Your task to perform on an android device: Search for a new mascara on Sephora Image 0: 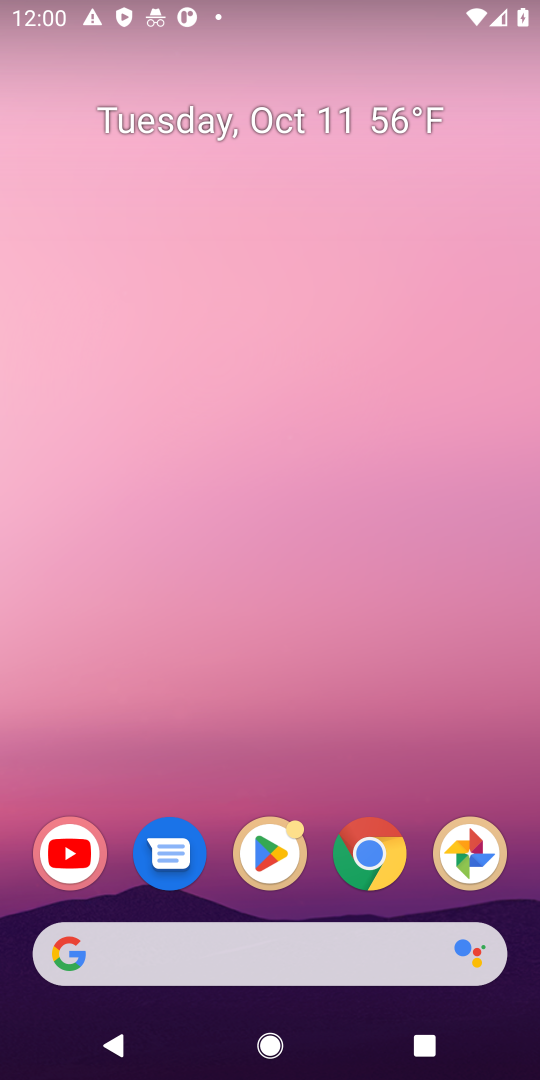
Step 0: drag from (345, 594) to (378, 65)
Your task to perform on an android device: Search for a new mascara on Sephora Image 1: 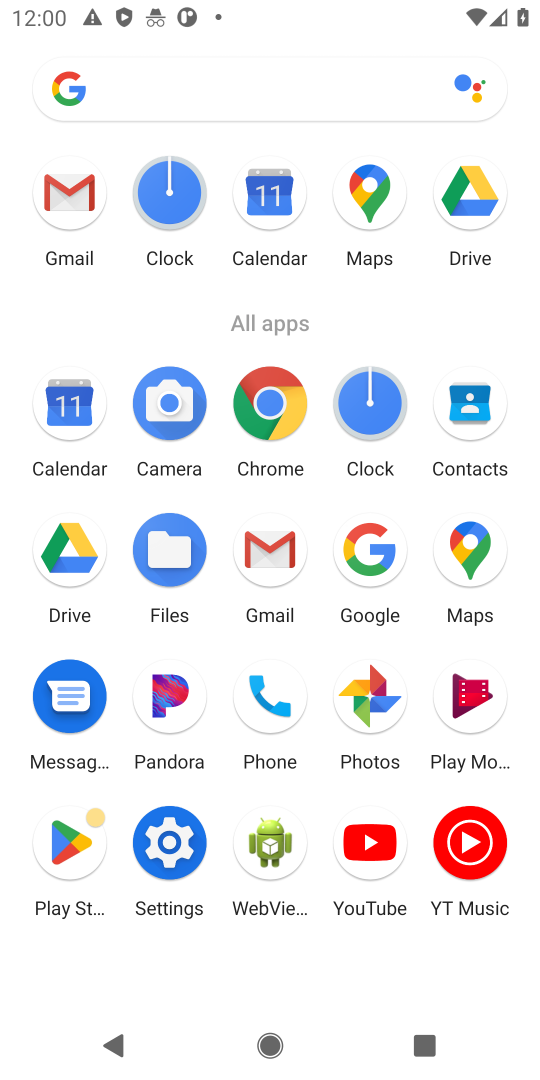
Step 1: click (278, 401)
Your task to perform on an android device: Search for a new mascara on Sephora Image 2: 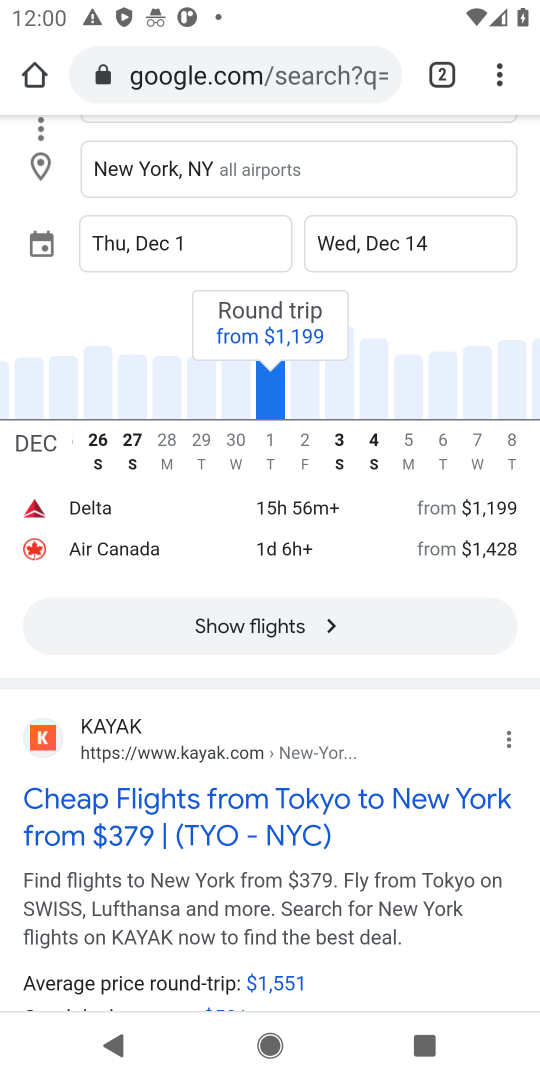
Step 2: drag from (434, 218) to (379, 1072)
Your task to perform on an android device: Search for a new mascara on Sephora Image 3: 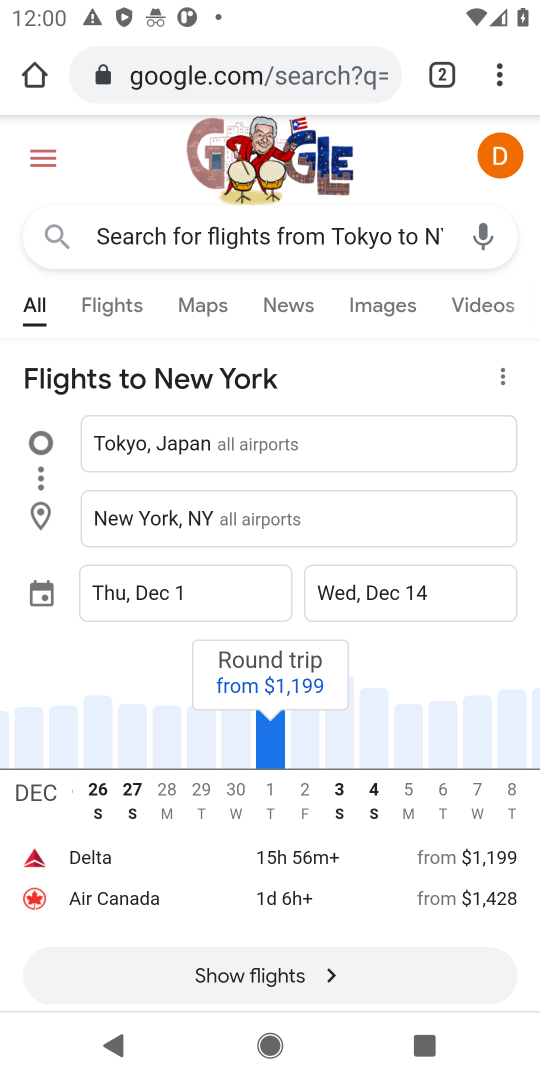
Step 3: click (229, 63)
Your task to perform on an android device: Search for a new mascara on Sephora Image 4: 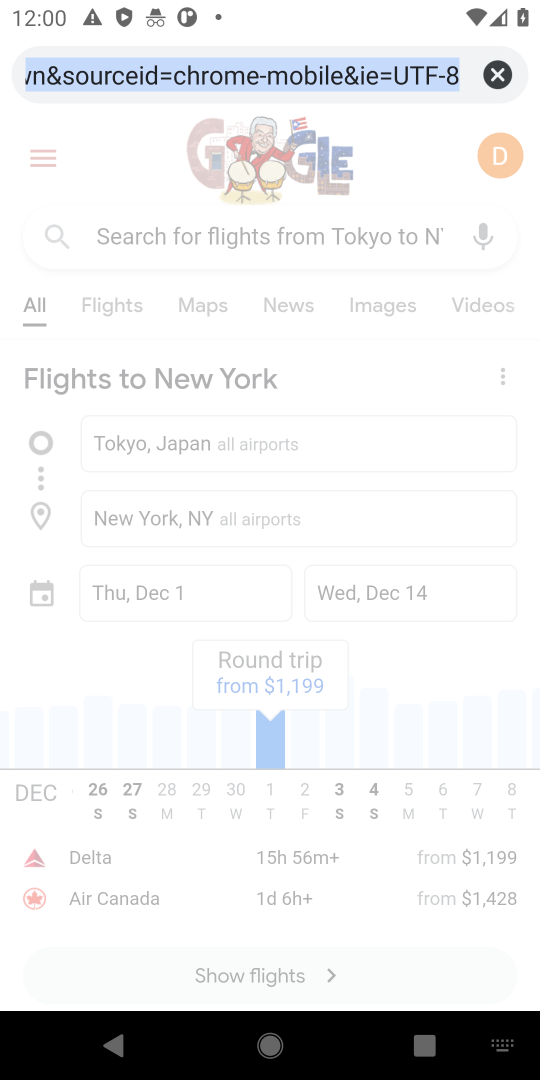
Step 4: click (498, 72)
Your task to perform on an android device: Search for a new mascara on Sephora Image 5: 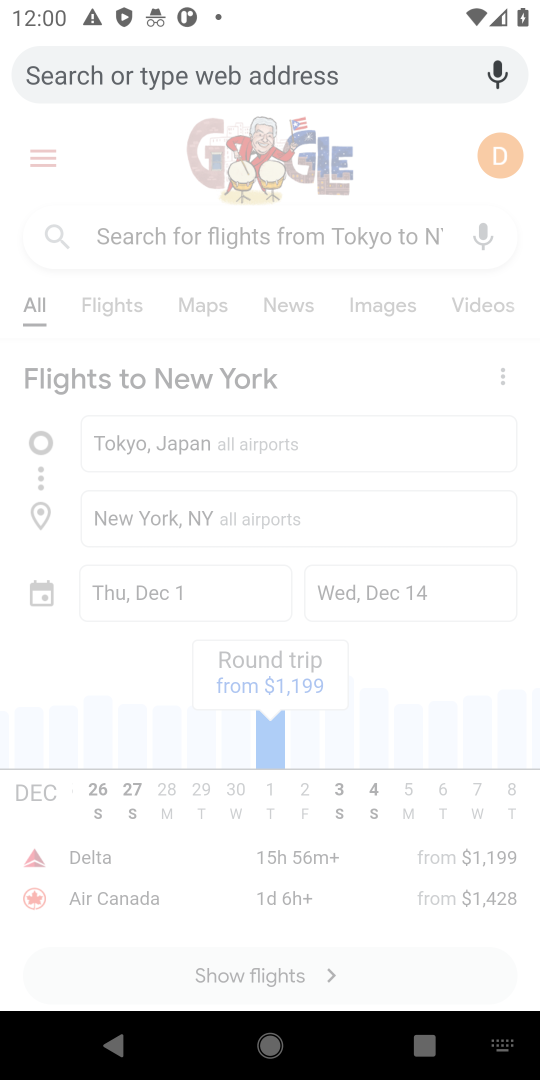
Step 5: type "Sephora"
Your task to perform on an android device: Search for a new mascara on Sephora Image 6: 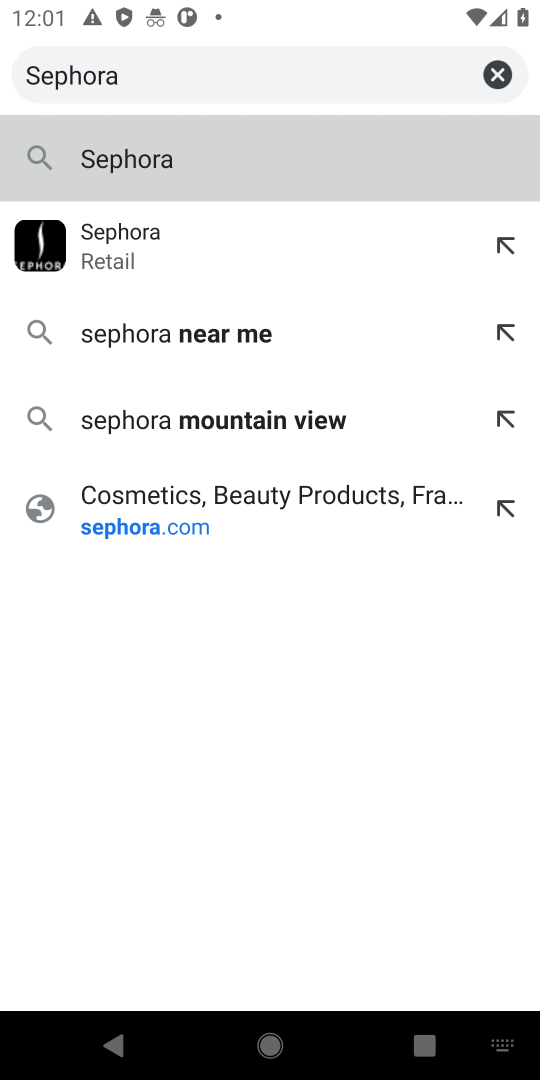
Step 6: click (113, 147)
Your task to perform on an android device: Search for a new mascara on Sephora Image 7: 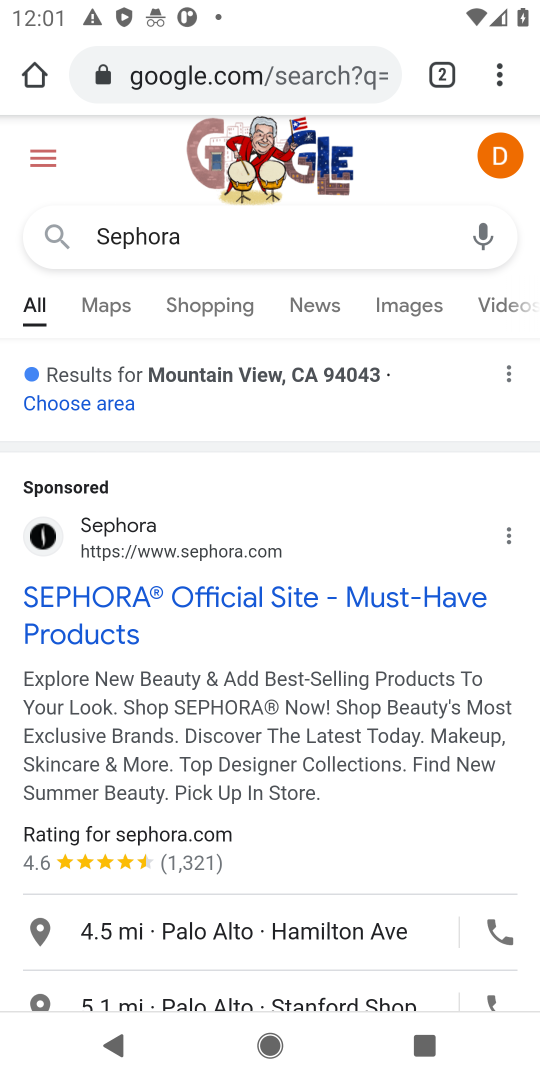
Step 7: click (285, 600)
Your task to perform on an android device: Search for a new mascara on Sephora Image 8: 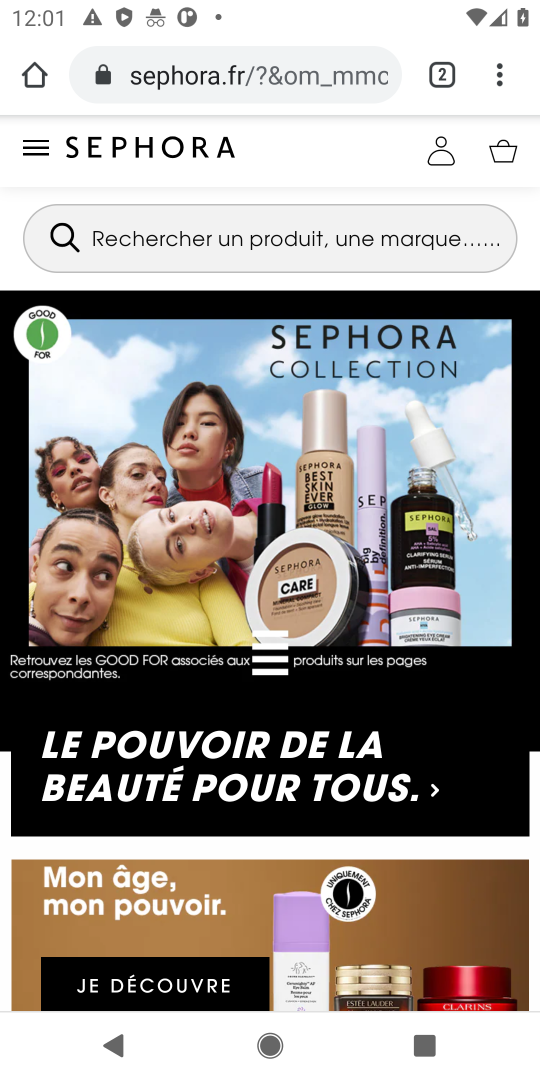
Step 8: click (428, 138)
Your task to perform on an android device: Search for a new mascara on Sephora Image 9: 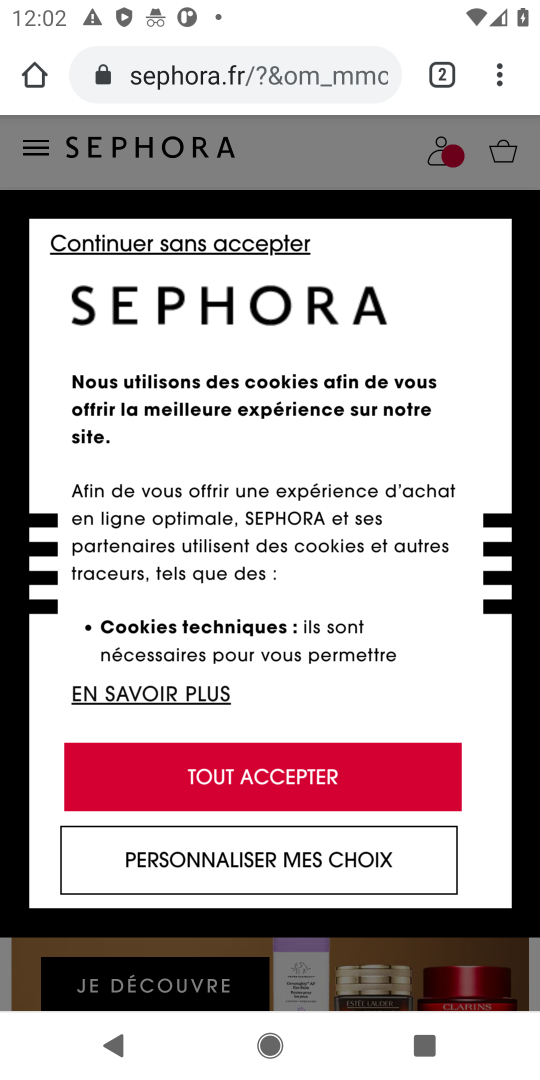
Step 9: click (308, 169)
Your task to perform on an android device: Search for a new mascara on Sephora Image 10: 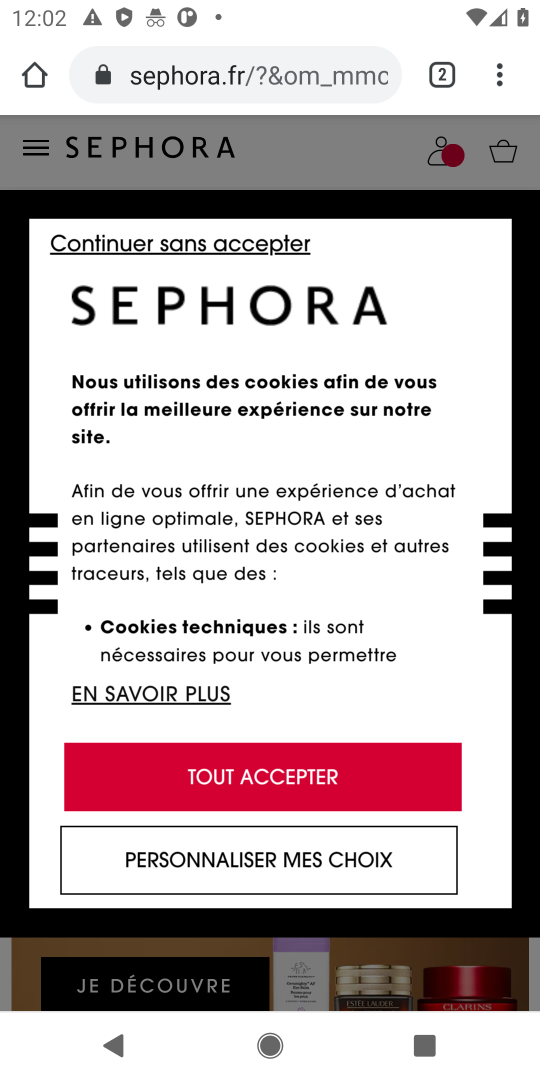
Step 10: click (19, 927)
Your task to perform on an android device: Search for a new mascara on Sephora Image 11: 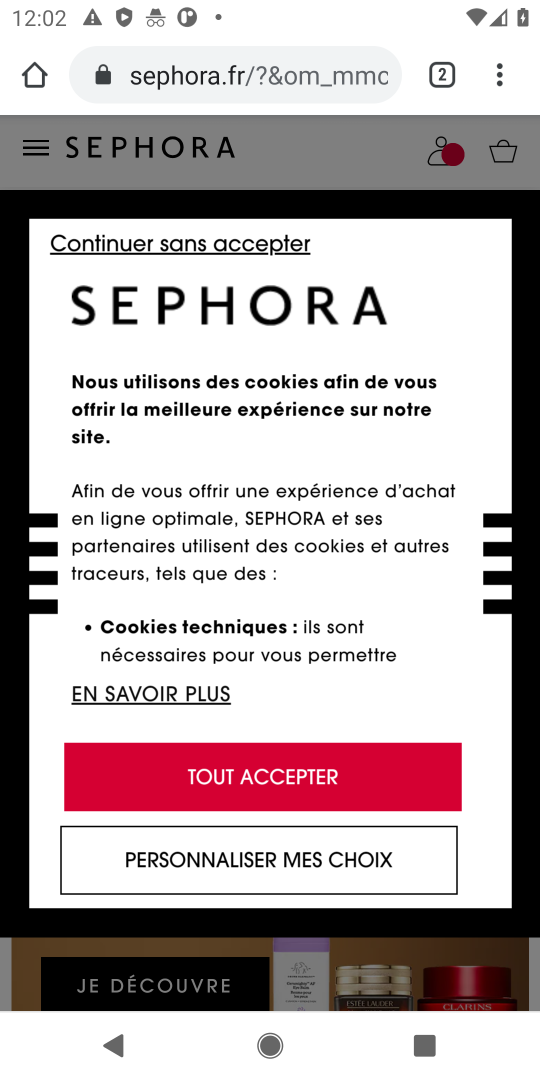
Step 11: click (336, 773)
Your task to perform on an android device: Search for a new mascara on Sephora Image 12: 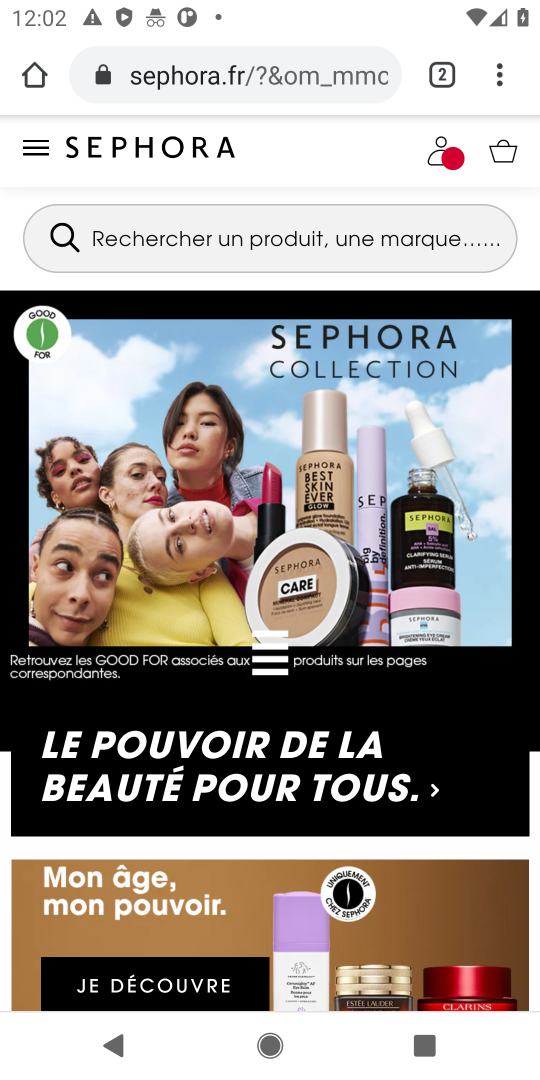
Step 12: click (327, 241)
Your task to perform on an android device: Search for a new mascara on Sephora Image 13: 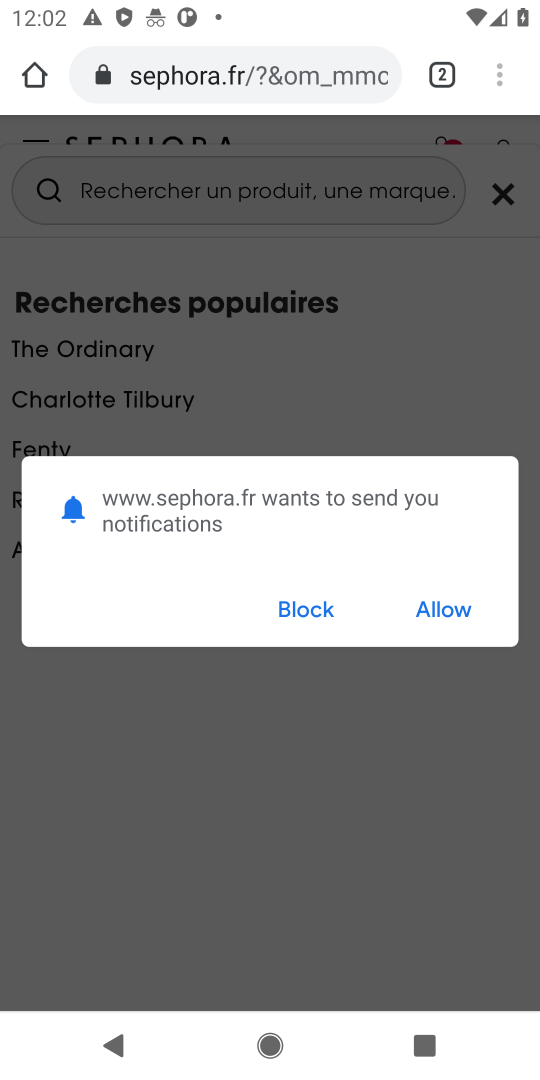
Step 13: click (446, 616)
Your task to perform on an android device: Search for a new mascara on Sephora Image 14: 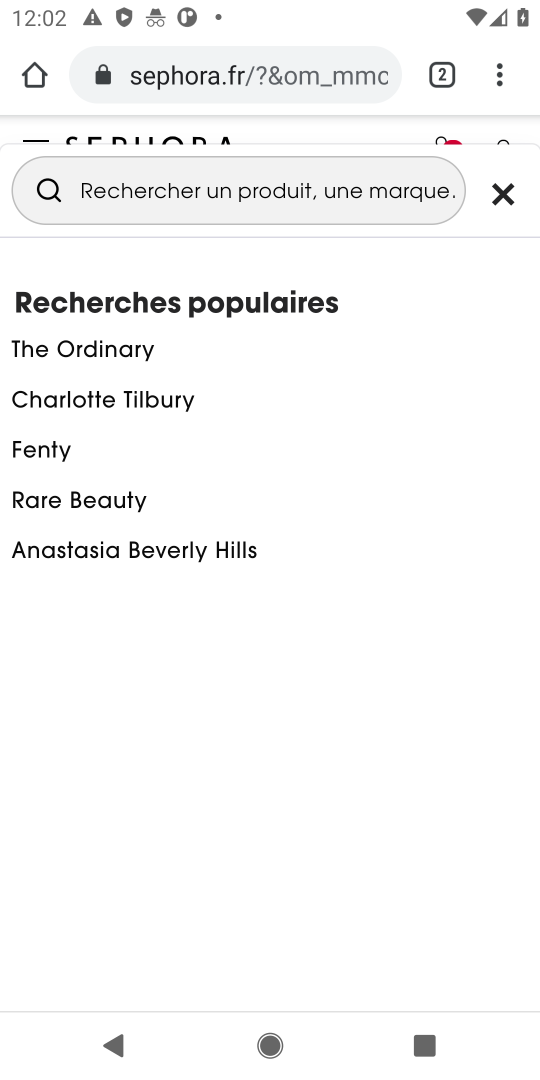
Step 14: click (163, 199)
Your task to perform on an android device: Search for a new mascara on Sephora Image 15: 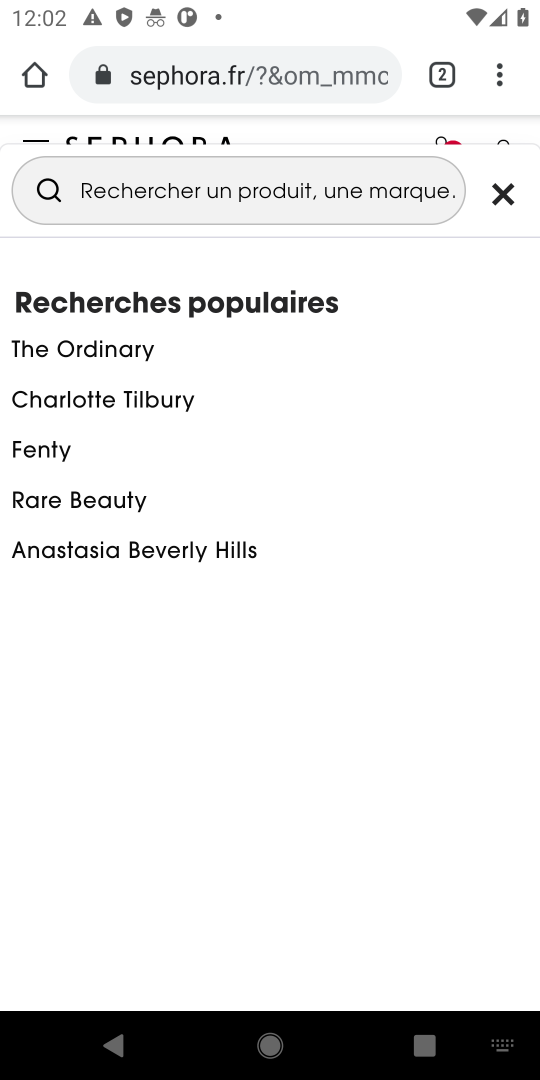
Step 15: type "new mascara "
Your task to perform on an android device: Search for a new mascara on Sephora Image 16: 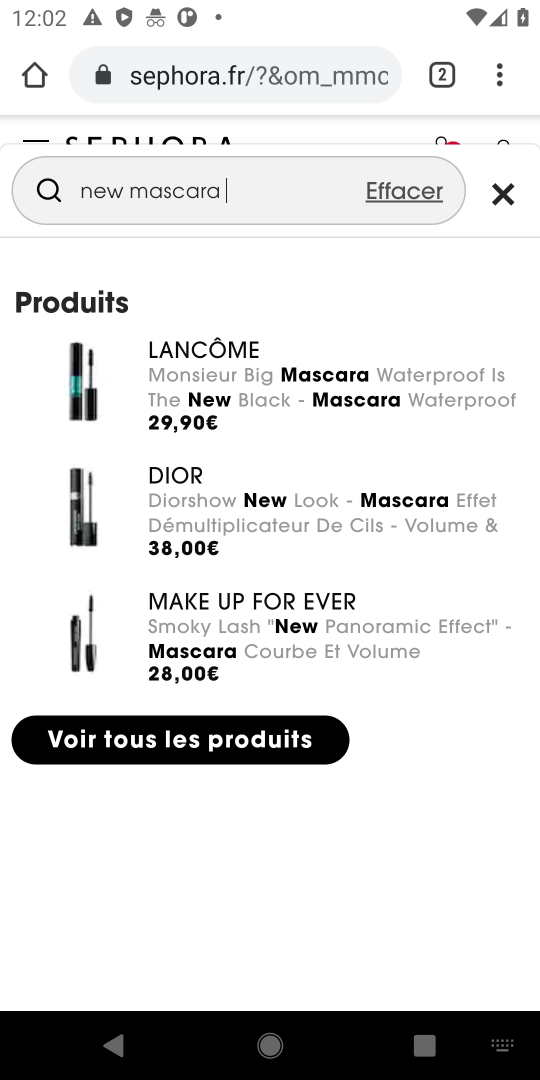
Step 16: task complete